Your task to perform on an android device: Add "usb-c to usb-b" to the cart on walmart.com, then select checkout. Image 0: 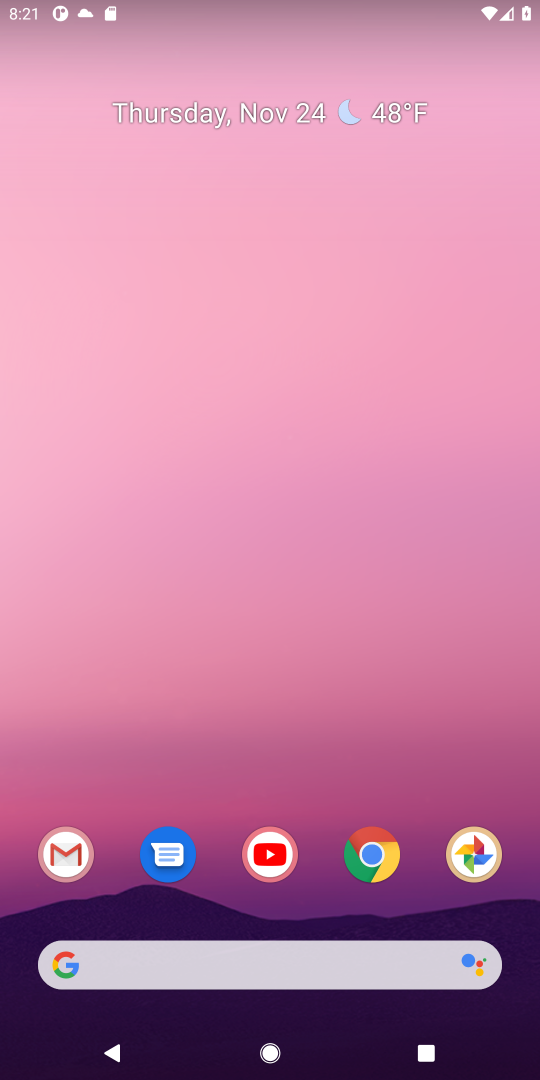
Step 0: click (370, 852)
Your task to perform on an android device: Add "usb-c to usb-b" to the cart on walmart.com, then select checkout. Image 1: 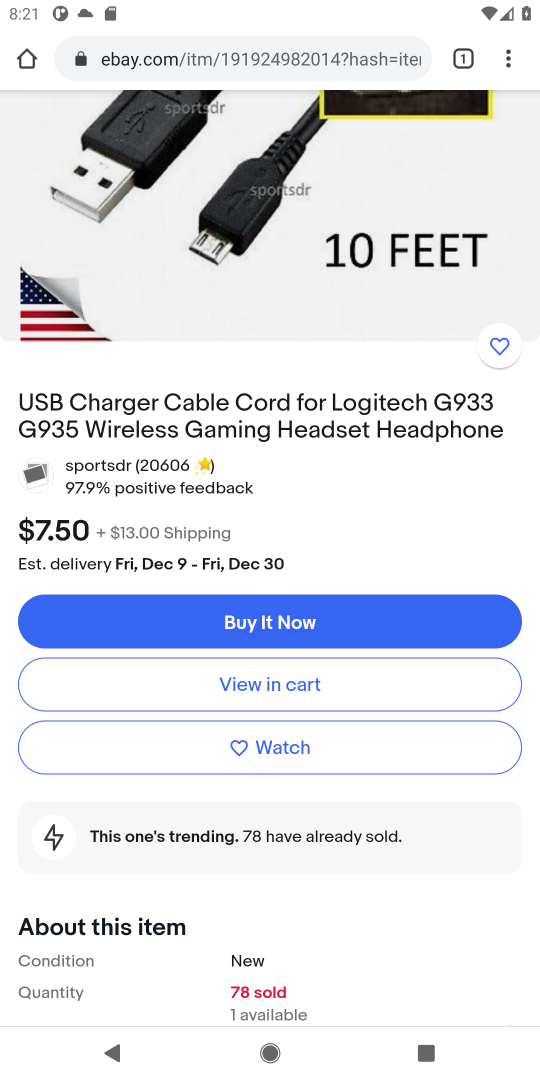
Step 1: click (201, 66)
Your task to perform on an android device: Add "usb-c to usb-b" to the cart on walmart.com, then select checkout. Image 2: 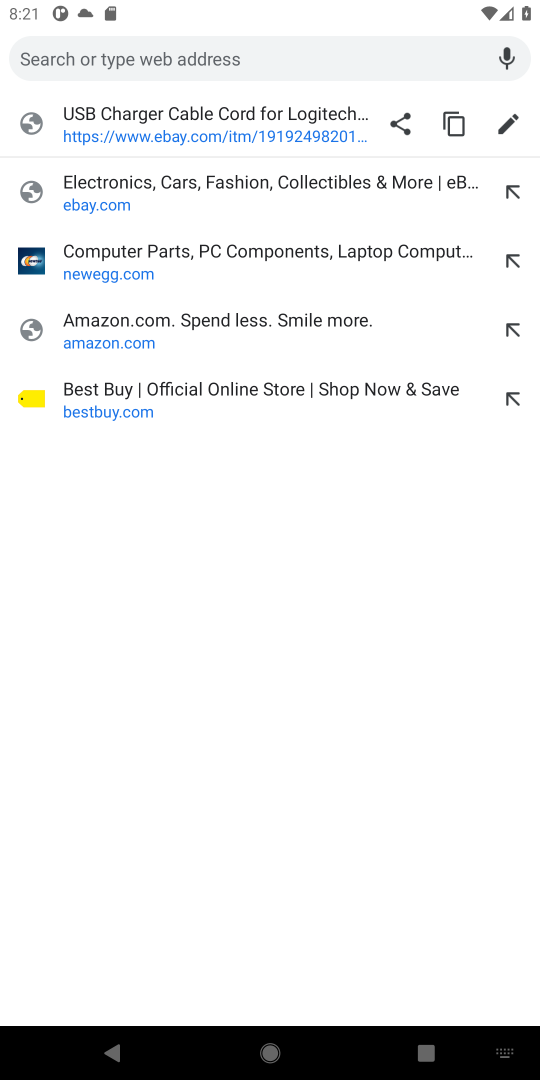
Step 2: type "walmart.com"
Your task to perform on an android device: Add "usb-c to usb-b" to the cart on walmart.com, then select checkout. Image 3: 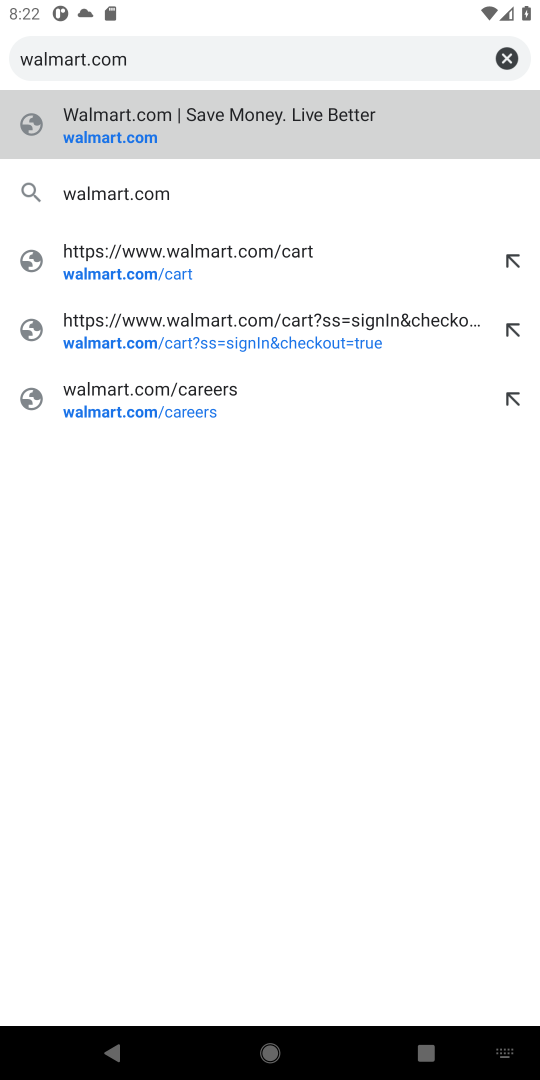
Step 3: click (100, 137)
Your task to perform on an android device: Add "usb-c to usb-b" to the cart on walmart.com, then select checkout. Image 4: 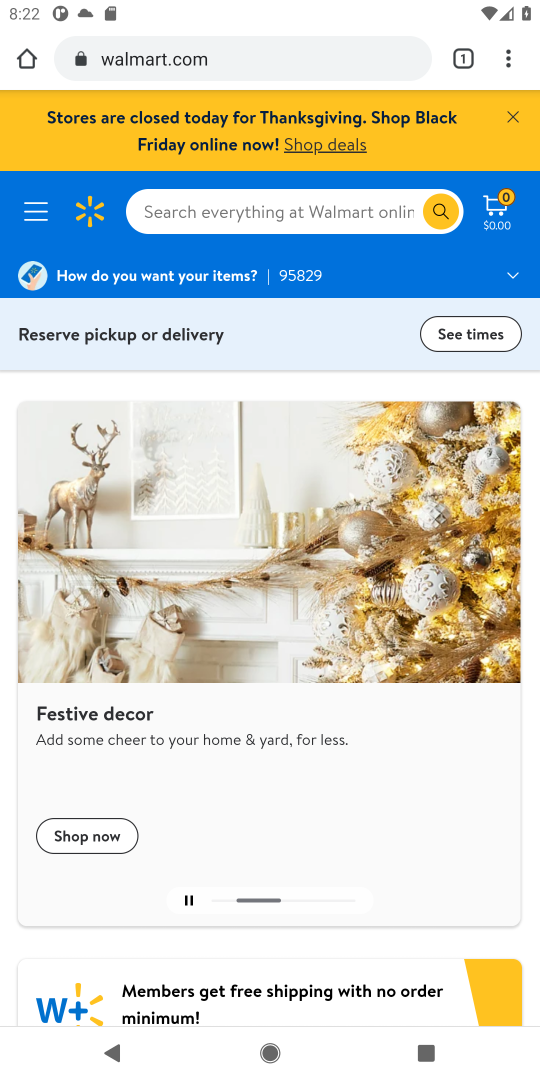
Step 4: click (209, 212)
Your task to perform on an android device: Add "usb-c to usb-b" to the cart on walmart.com, then select checkout. Image 5: 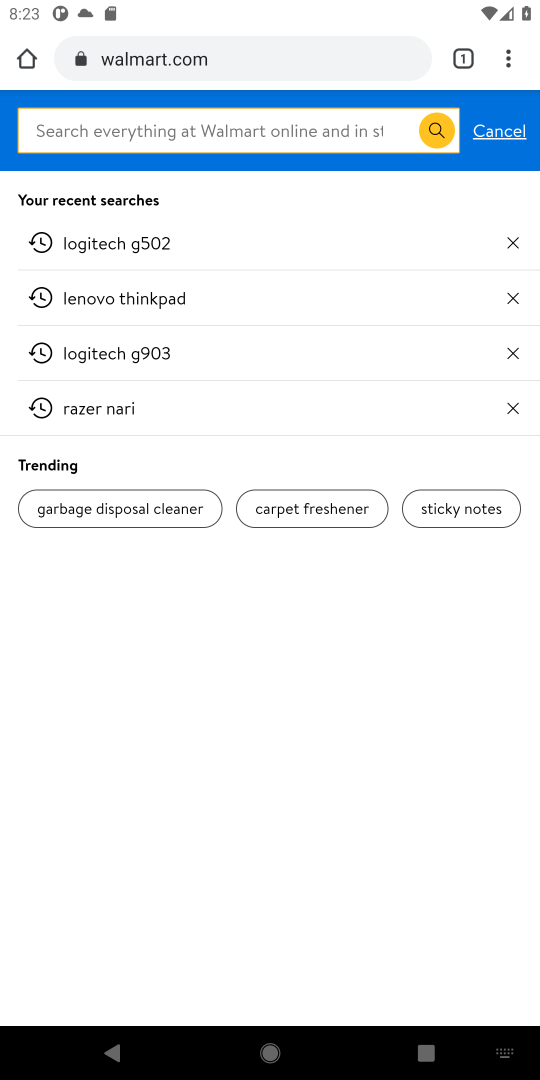
Step 5: type "usb-c to usb-b"
Your task to perform on an android device: Add "usb-c to usb-b" to the cart on walmart.com, then select checkout. Image 6: 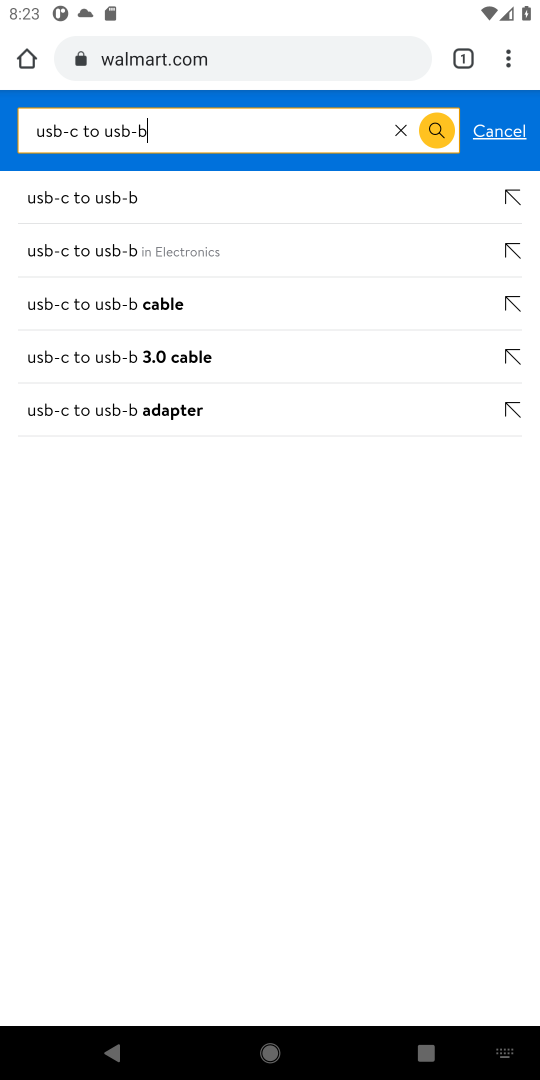
Step 6: click (66, 205)
Your task to perform on an android device: Add "usb-c to usb-b" to the cart on walmart.com, then select checkout. Image 7: 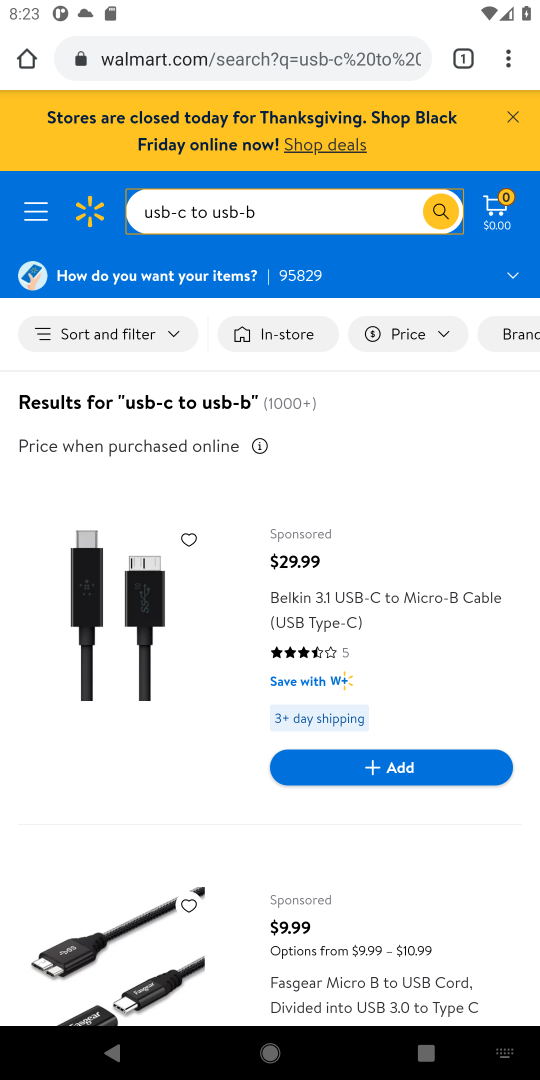
Step 7: drag from (89, 717) to (99, 411)
Your task to perform on an android device: Add "usb-c to usb-b" to the cart on walmart.com, then select checkout. Image 8: 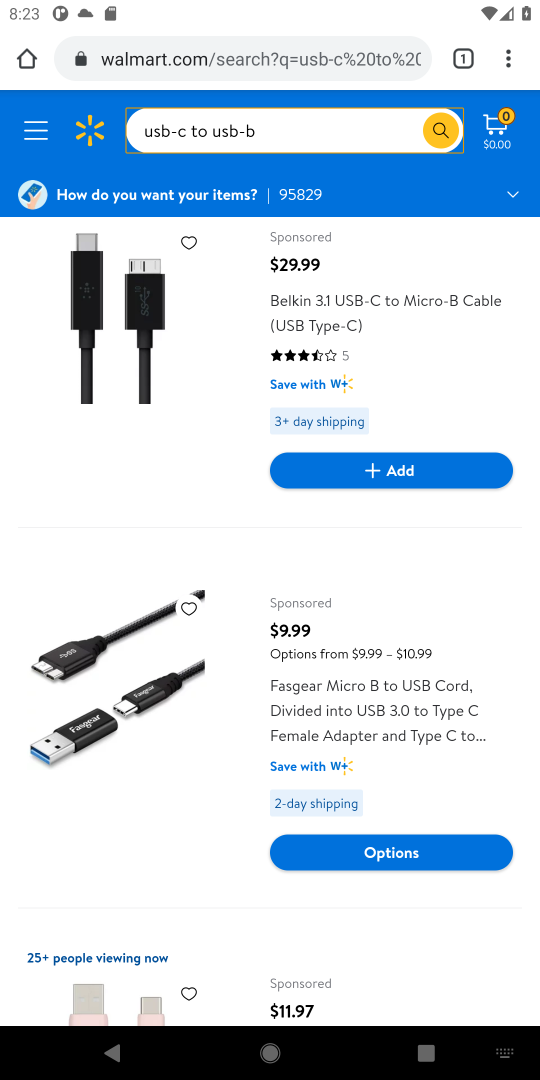
Step 8: drag from (82, 735) to (82, 545)
Your task to perform on an android device: Add "usb-c to usb-b" to the cart on walmart.com, then select checkout. Image 9: 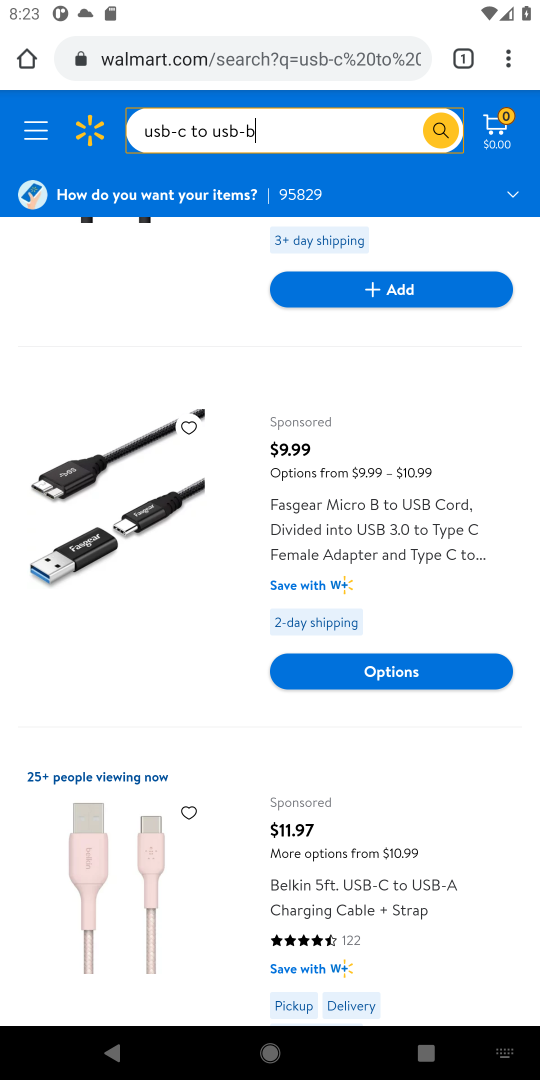
Step 9: click (82, 545)
Your task to perform on an android device: Add "usb-c to usb-b" to the cart on walmart.com, then select checkout. Image 10: 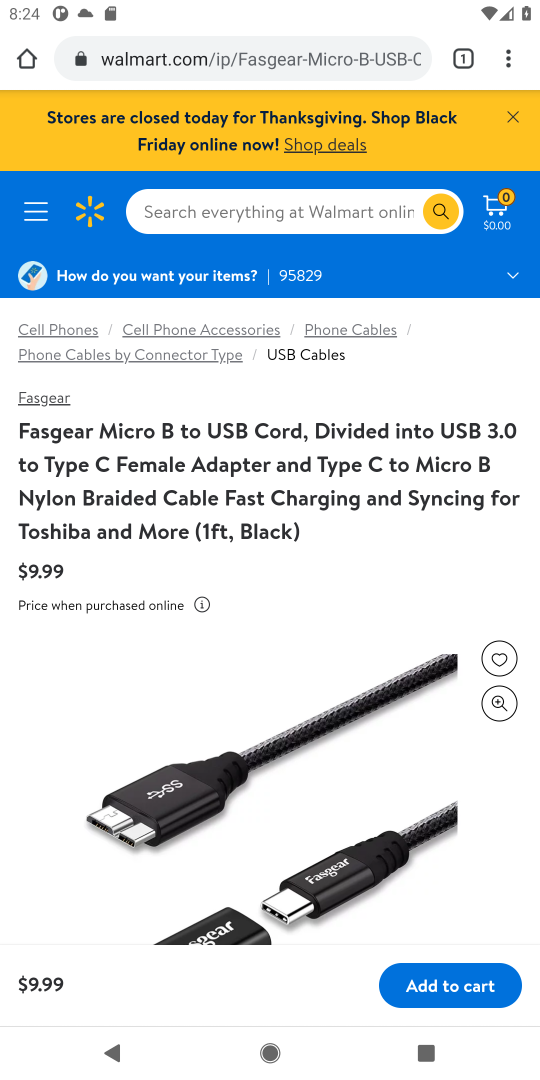
Step 10: press back button
Your task to perform on an android device: Add "usb-c to usb-b" to the cart on walmart.com, then select checkout. Image 11: 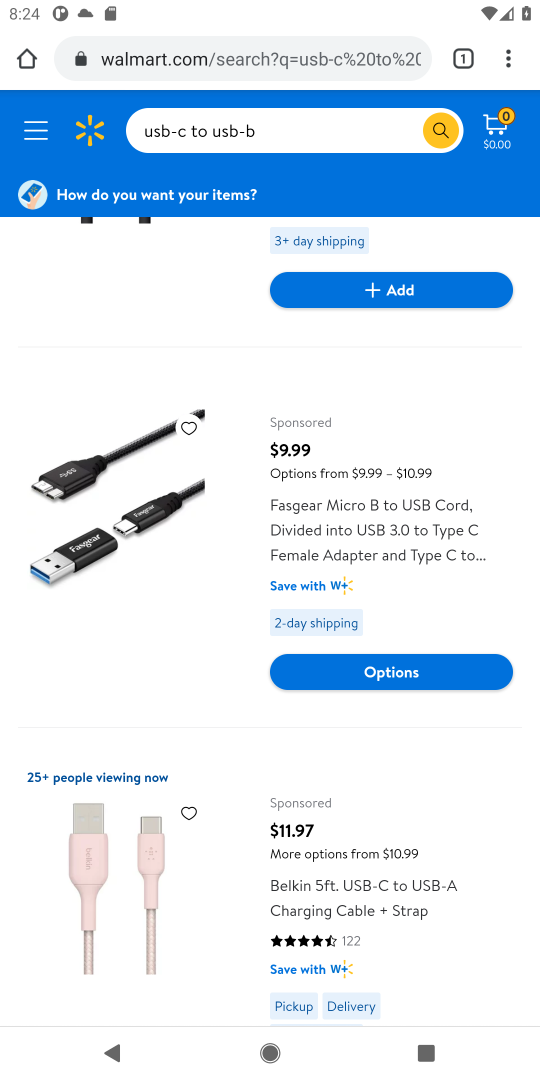
Step 11: drag from (182, 862) to (168, 482)
Your task to perform on an android device: Add "usb-c to usb-b" to the cart on walmart.com, then select checkout. Image 12: 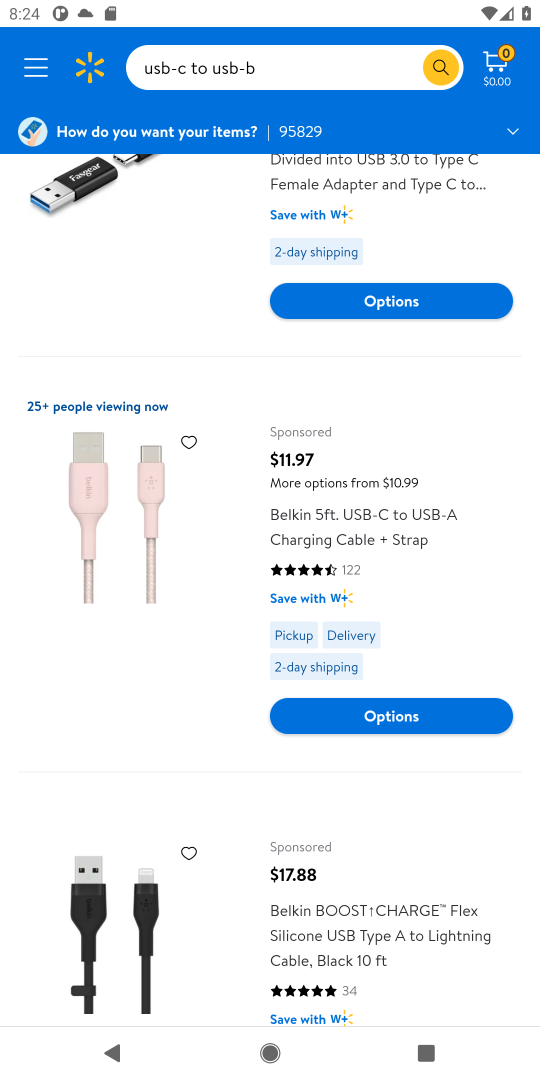
Step 12: drag from (129, 697) to (140, 436)
Your task to perform on an android device: Add "usb-c to usb-b" to the cart on walmart.com, then select checkout. Image 13: 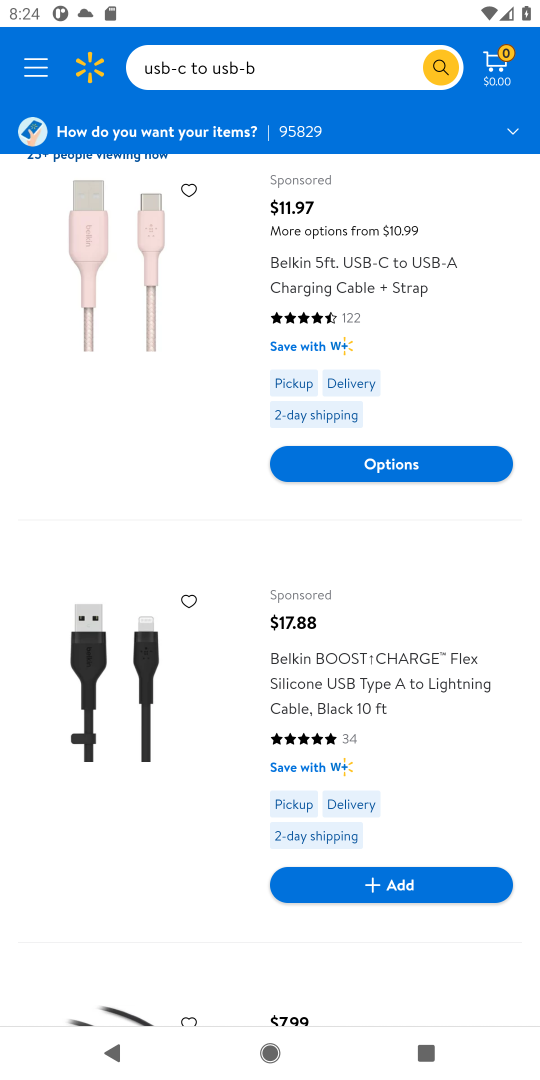
Step 13: drag from (106, 678) to (155, 380)
Your task to perform on an android device: Add "usb-c to usb-b" to the cart on walmart.com, then select checkout. Image 14: 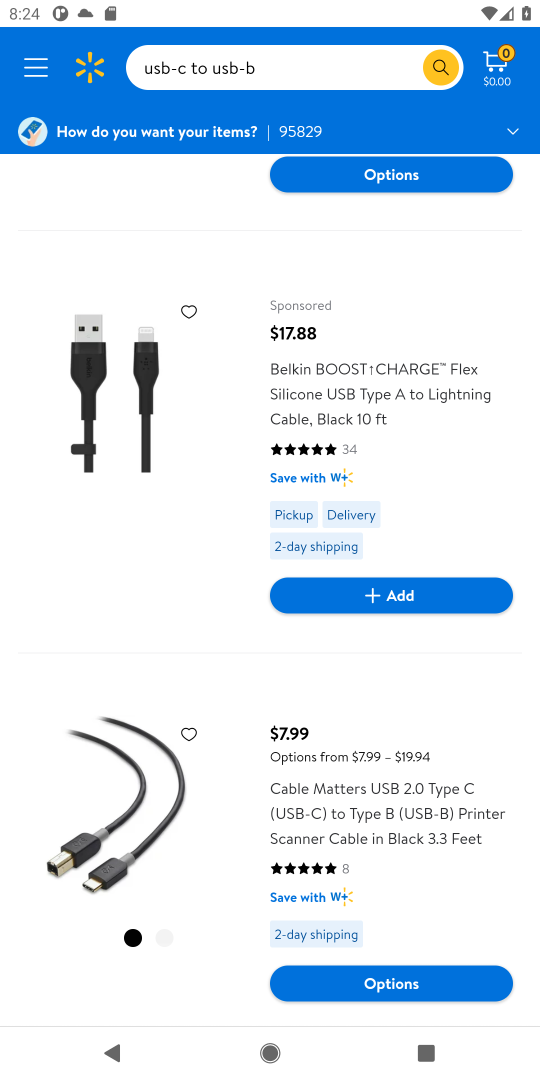
Step 14: click (161, 851)
Your task to perform on an android device: Add "usb-c to usb-b" to the cart on walmart.com, then select checkout. Image 15: 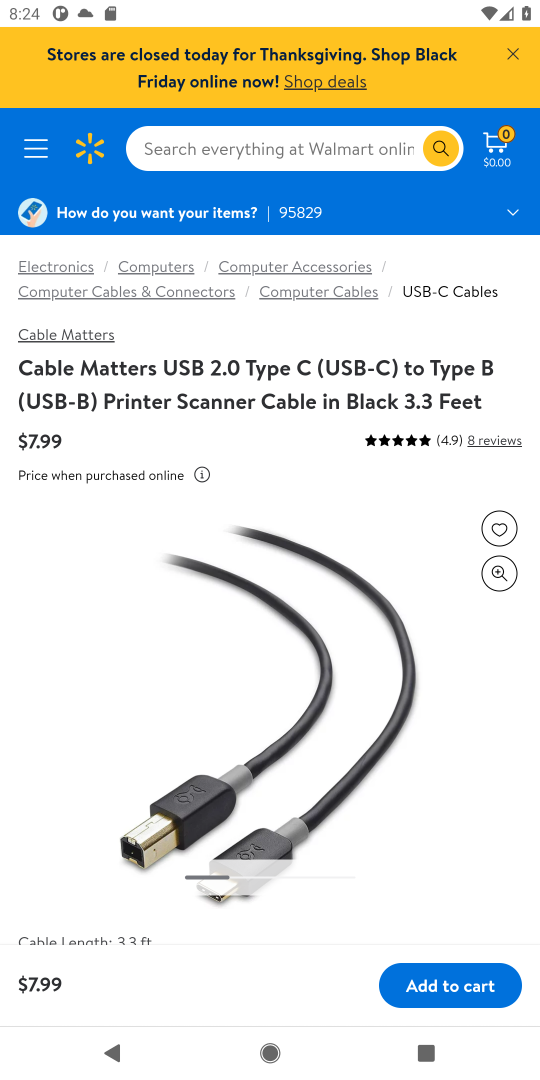
Step 15: click (433, 985)
Your task to perform on an android device: Add "usb-c to usb-b" to the cart on walmart.com, then select checkout. Image 16: 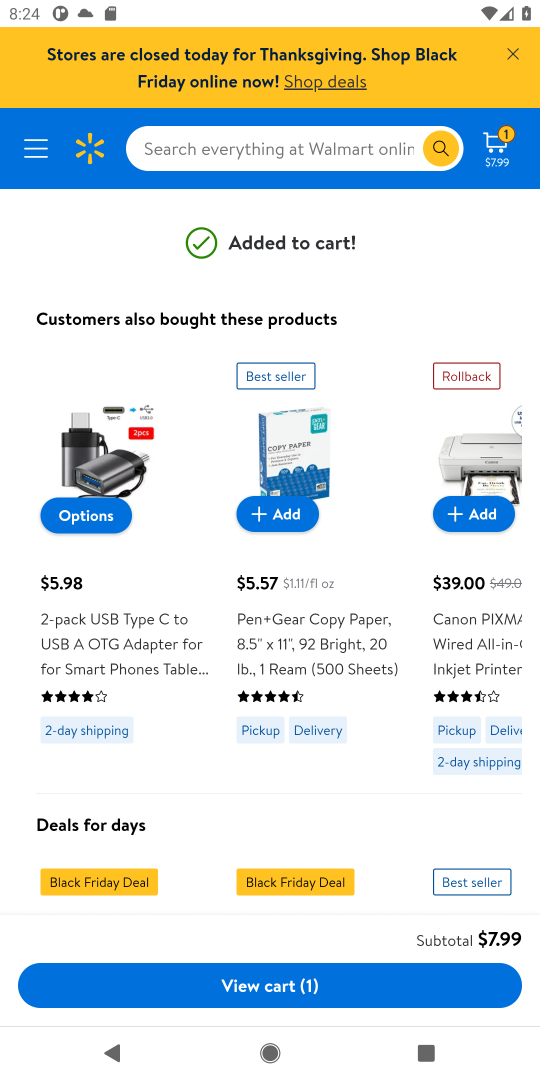
Step 16: click (264, 986)
Your task to perform on an android device: Add "usb-c to usb-b" to the cart on walmart.com, then select checkout. Image 17: 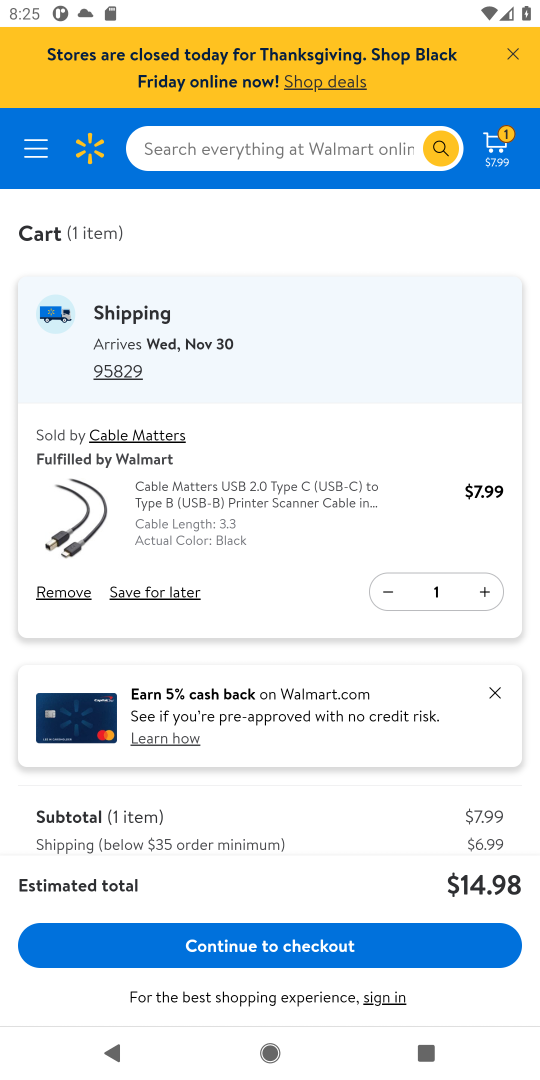
Step 17: click (259, 948)
Your task to perform on an android device: Add "usb-c to usb-b" to the cart on walmart.com, then select checkout. Image 18: 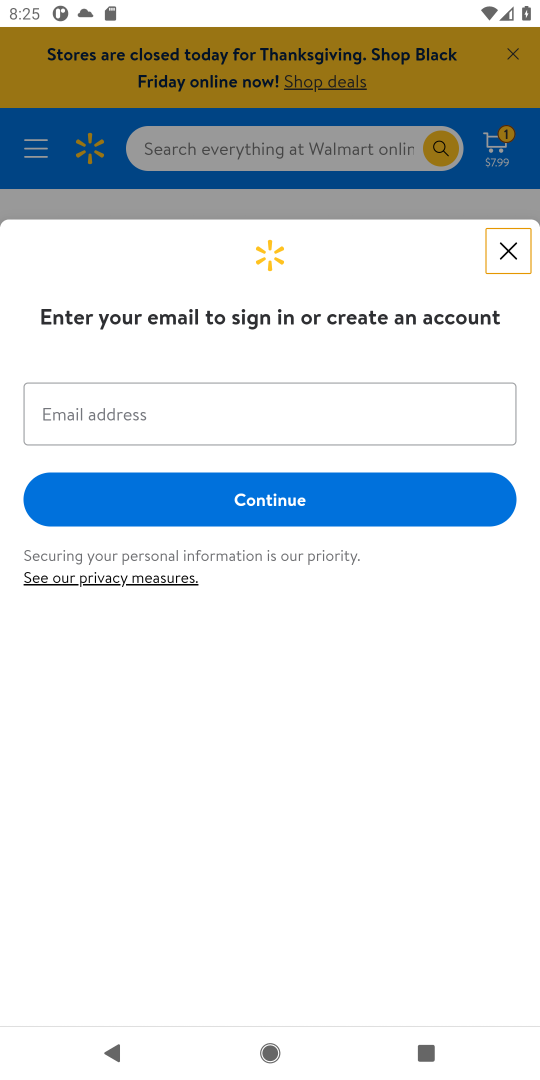
Step 18: task complete